Your task to perform on an android device: Go to eBay Image 0: 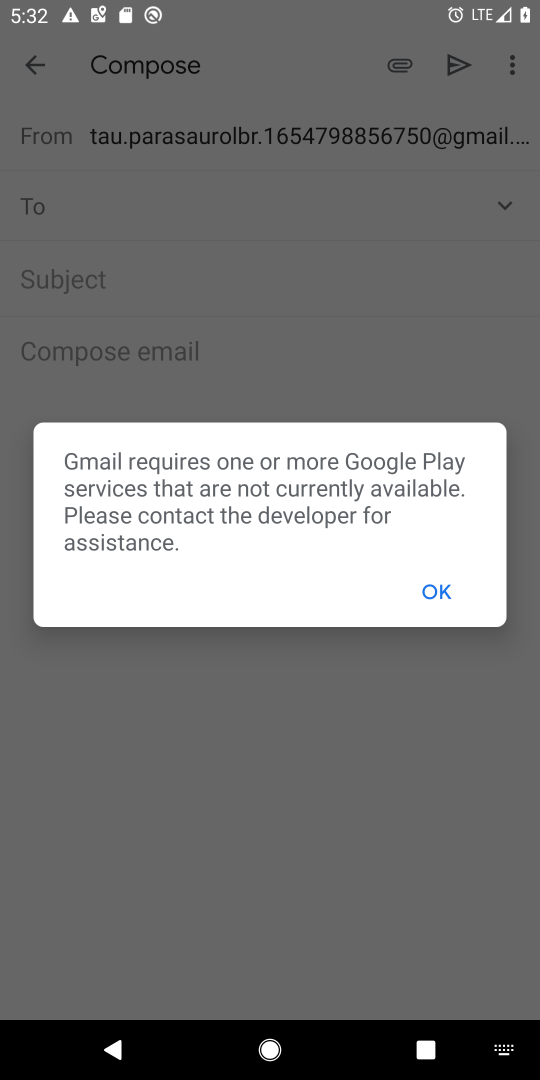
Step 0: click (429, 585)
Your task to perform on an android device: Go to eBay Image 1: 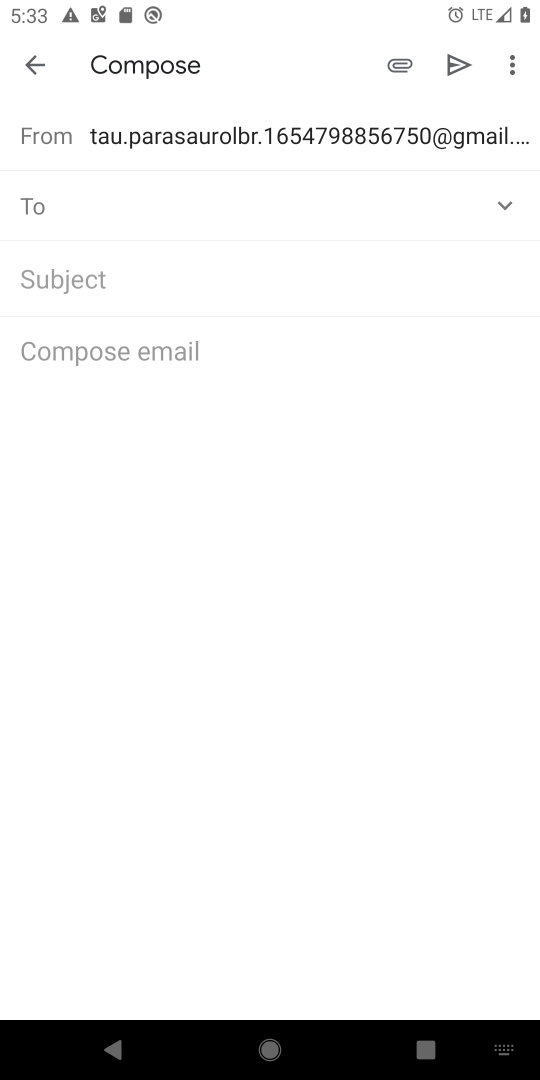
Step 1: press back button
Your task to perform on an android device: Go to eBay Image 2: 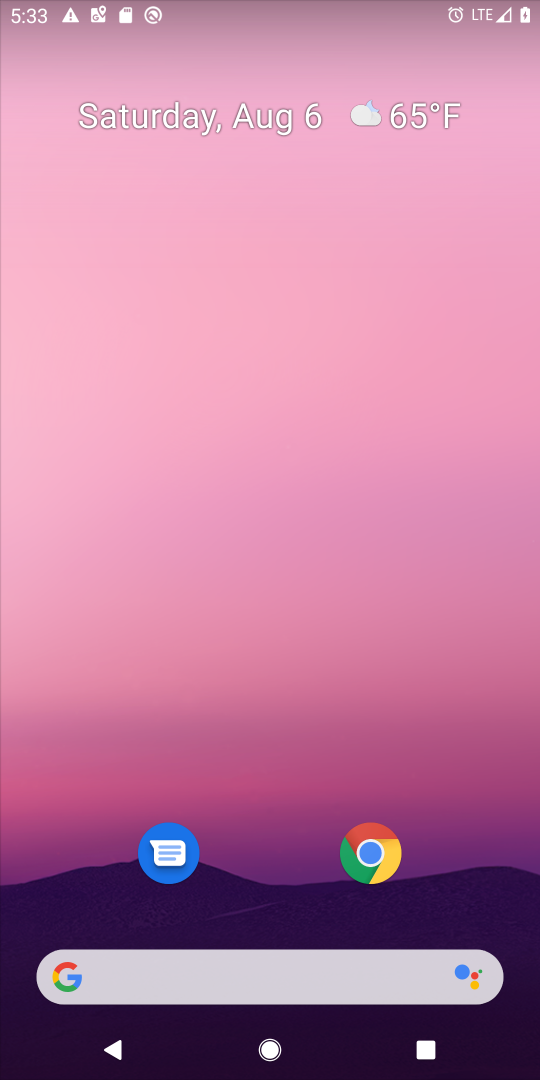
Step 2: press back button
Your task to perform on an android device: Go to eBay Image 3: 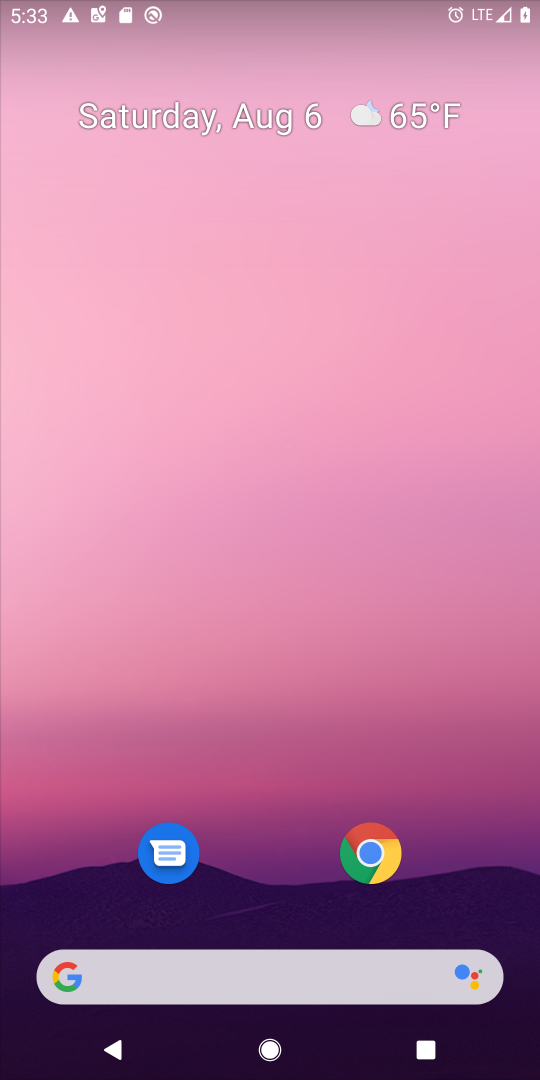
Step 3: click (386, 854)
Your task to perform on an android device: Go to eBay Image 4: 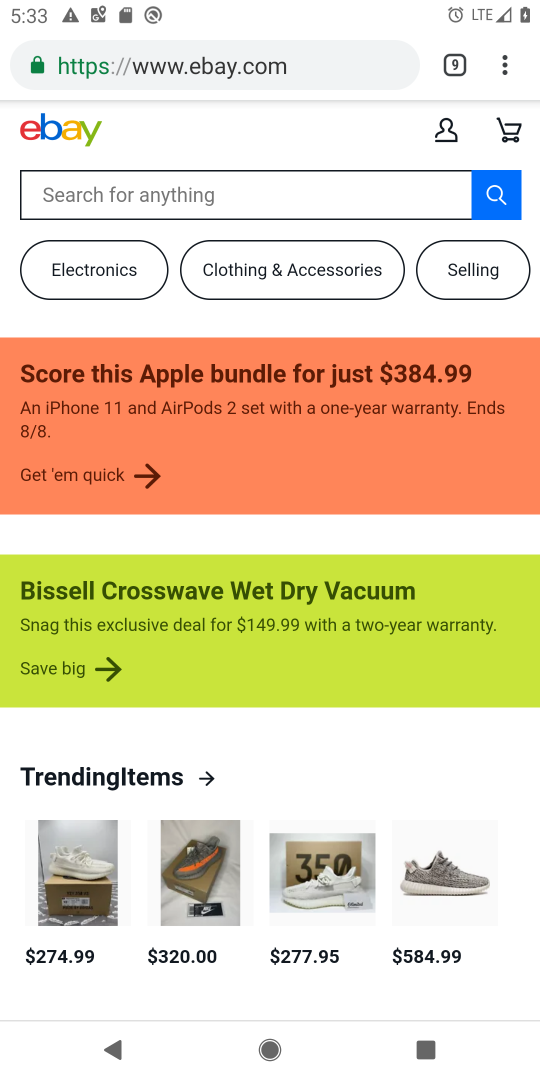
Step 4: task complete